Your task to perform on an android device: What's the weather going to be this weekend? Image 0: 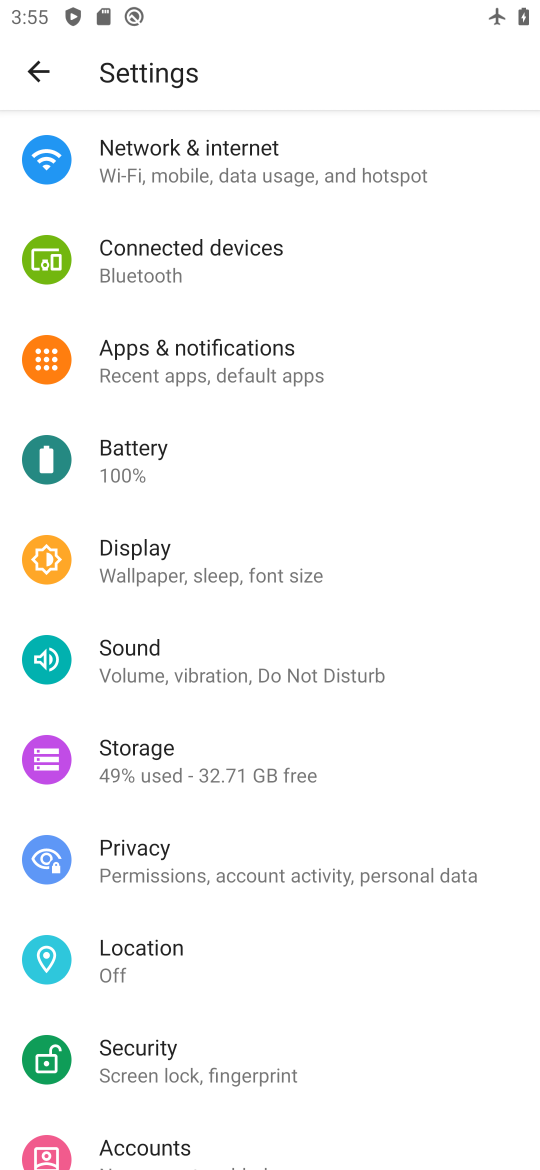
Step 0: press home button
Your task to perform on an android device: What's the weather going to be this weekend? Image 1: 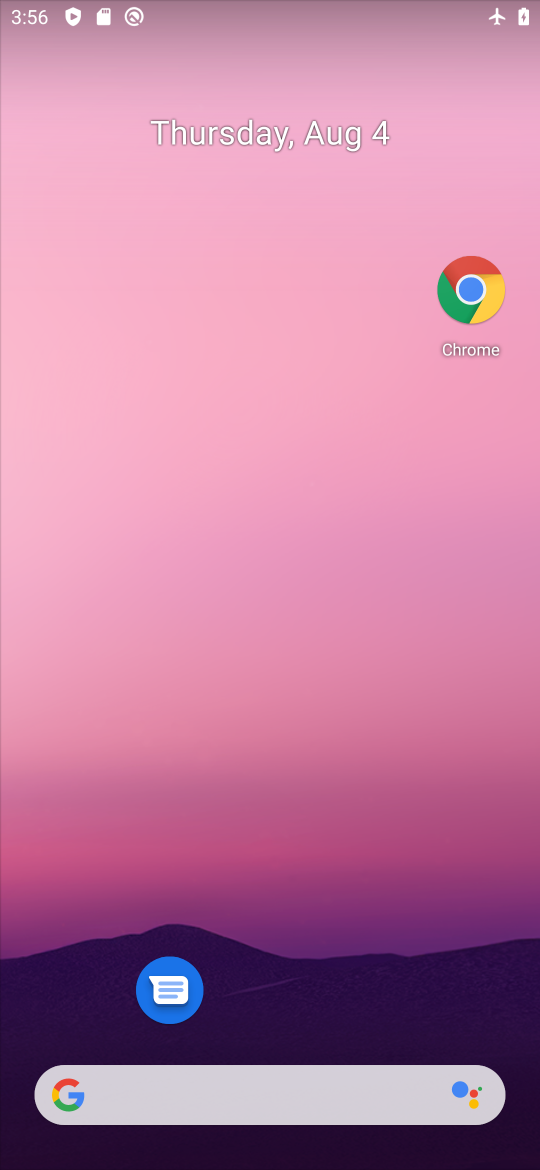
Step 1: click (291, 1092)
Your task to perform on an android device: What's the weather going to be this weekend? Image 2: 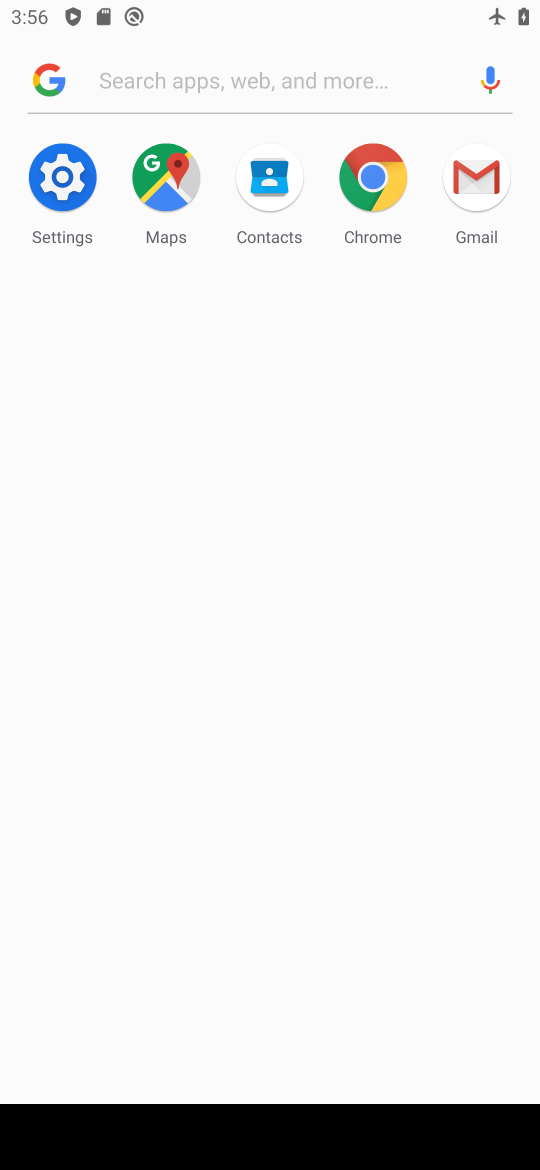
Step 2: type "weather"
Your task to perform on an android device: What's the weather going to be this weekend? Image 3: 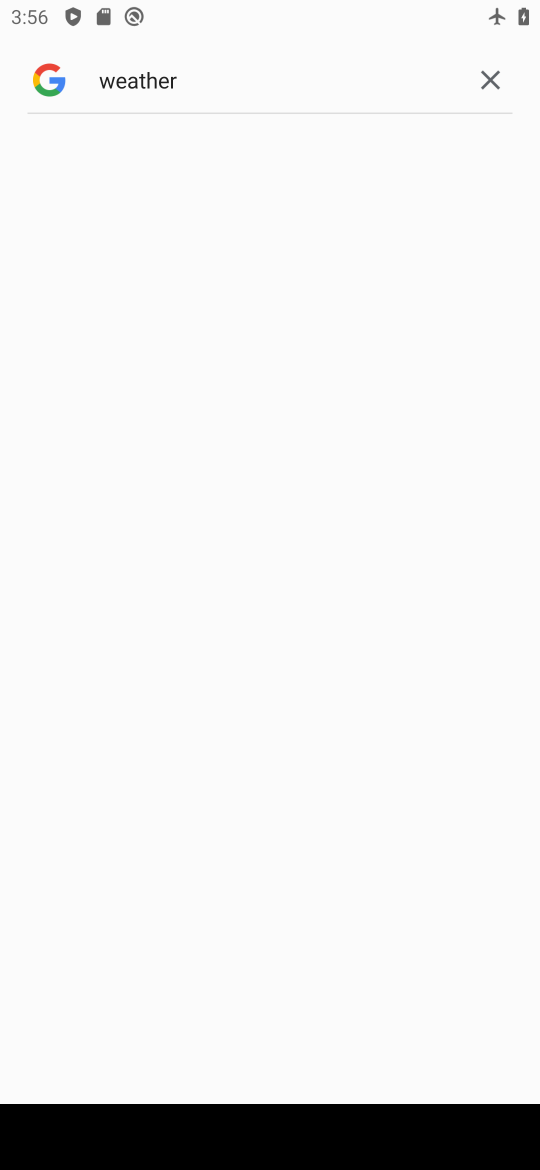
Step 3: task complete